Your task to perform on an android device: set default search engine in the chrome app Image 0: 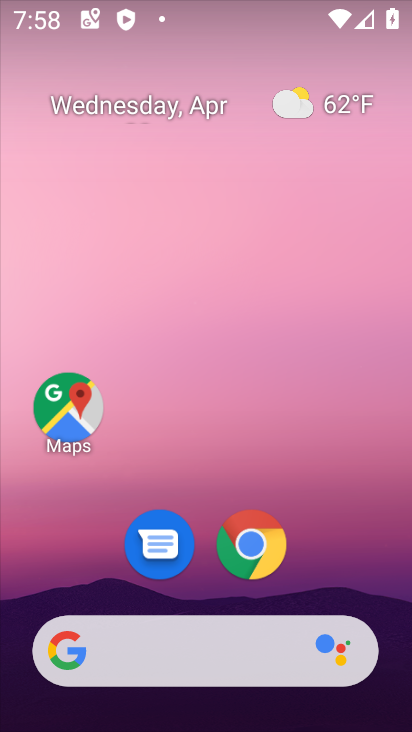
Step 0: click (266, 546)
Your task to perform on an android device: set default search engine in the chrome app Image 1: 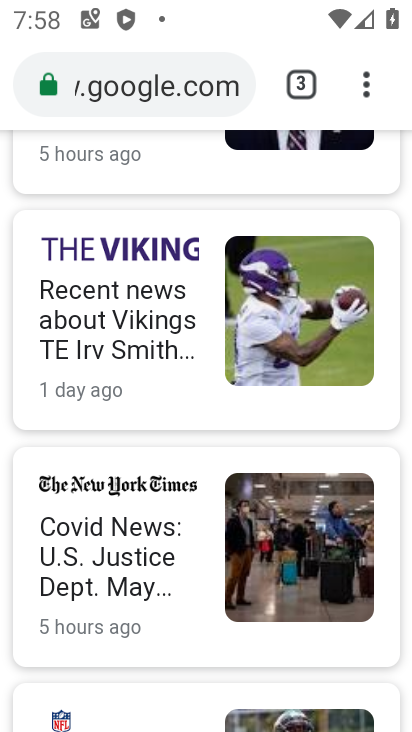
Step 1: drag from (364, 90) to (98, 587)
Your task to perform on an android device: set default search engine in the chrome app Image 2: 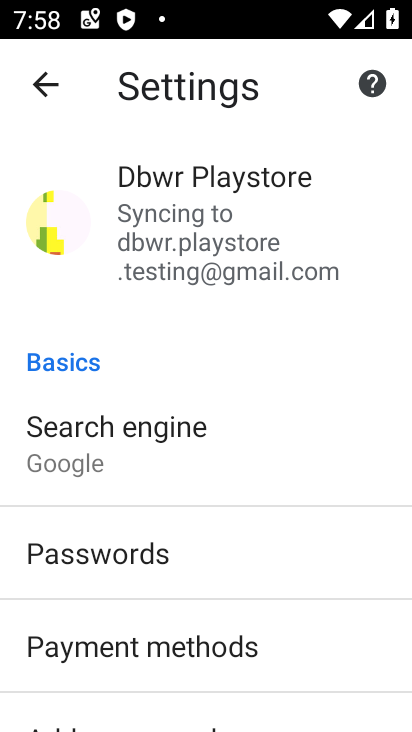
Step 2: click (94, 426)
Your task to perform on an android device: set default search engine in the chrome app Image 3: 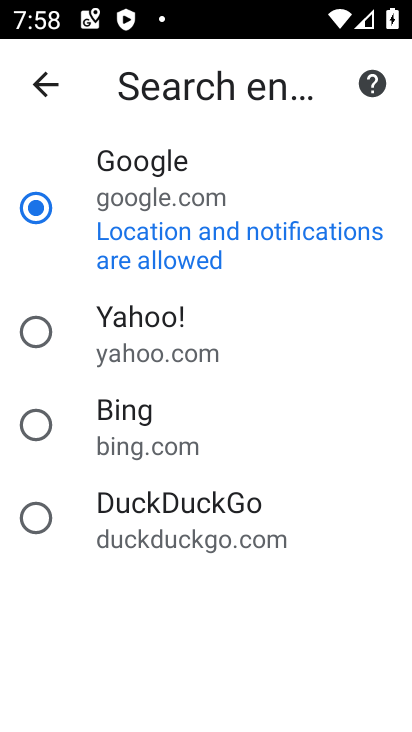
Step 3: click (51, 428)
Your task to perform on an android device: set default search engine in the chrome app Image 4: 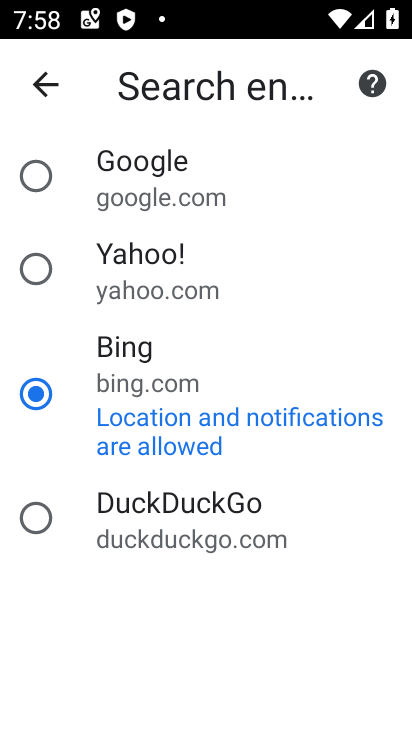
Step 4: task complete